Your task to perform on an android device: Go to battery settings Image 0: 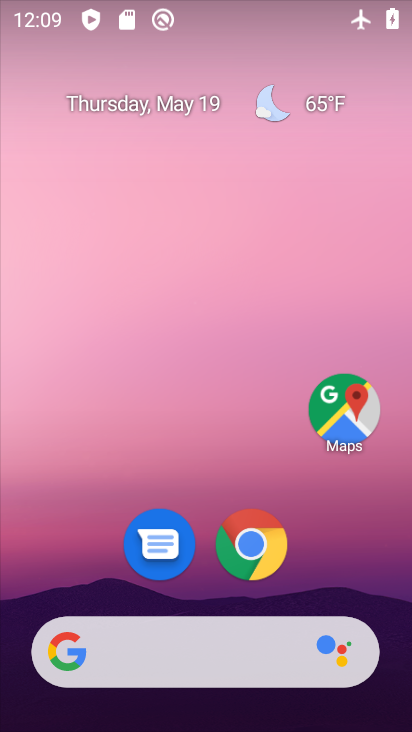
Step 0: drag from (365, 555) to (347, 156)
Your task to perform on an android device: Go to battery settings Image 1: 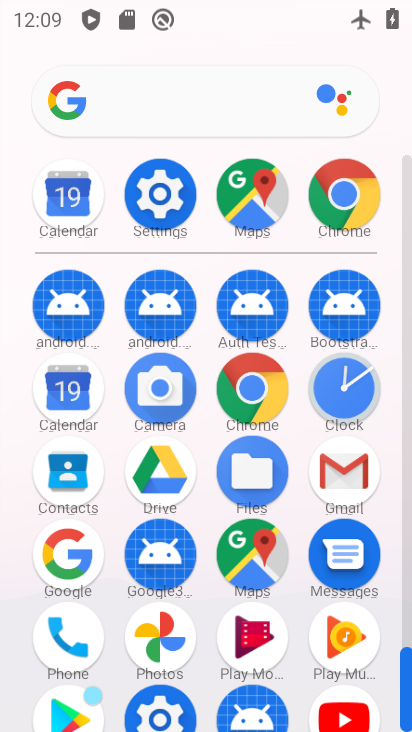
Step 1: click (141, 202)
Your task to perform on an android device: Go to battery settings Image 2: 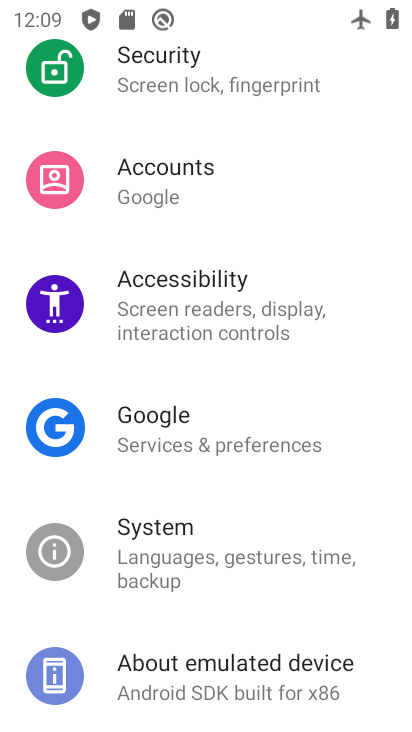
Step 2: drag from (325, 604) to (334, 366)
Your task to perform on an android device: Go to battery settings Image 3: 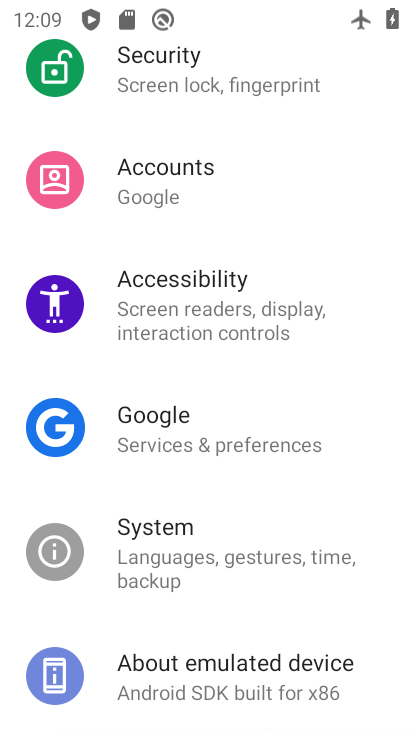
Step 3: drag from (358, 313) to (358, 449)
Your task to perform on an android device: Go to battery settings Image 4: 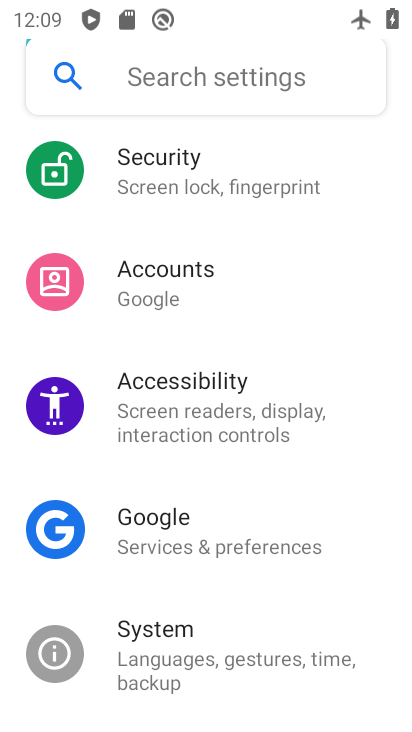
Step 4: drag from (367, 321) to (351, 436)
Your task to perform on an android device: Go to battery settings Image 5: 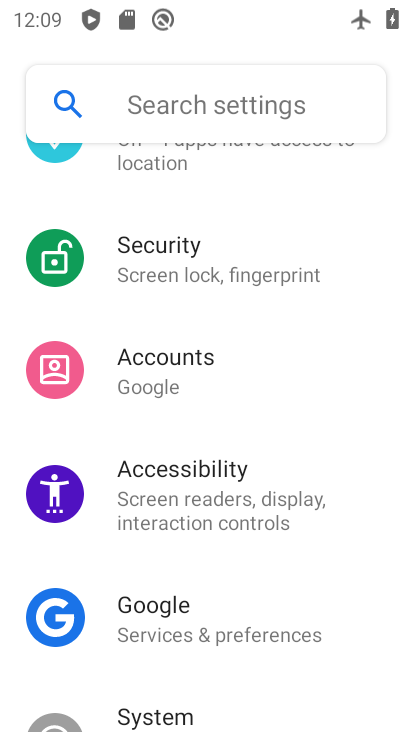
Step 5: drag from (362, 299) to (351, 410)
Your task to perform on an android device: Go to battery settings Image 6: 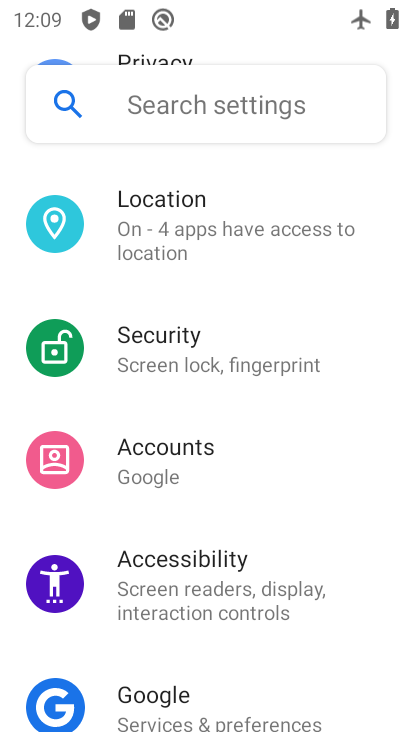
Step 6: drag from (344, 269) to (350, 387)
Your task to perform on an android device: Go to battery settings Image 7: 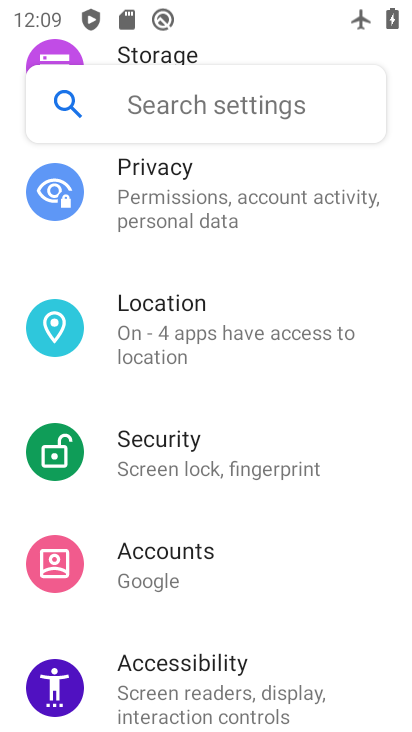
Step 7: drag from (357, 250) to (343, 356)
Your task to perform on an android device: Go to battery settings Image 8: 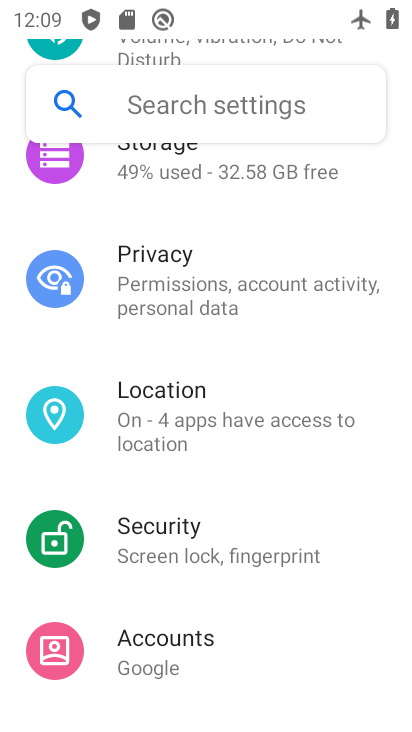
Step 8: drag from (345, 235) to (335, 342)
Your task to perform on an android device: Go to battery settings Image 9: 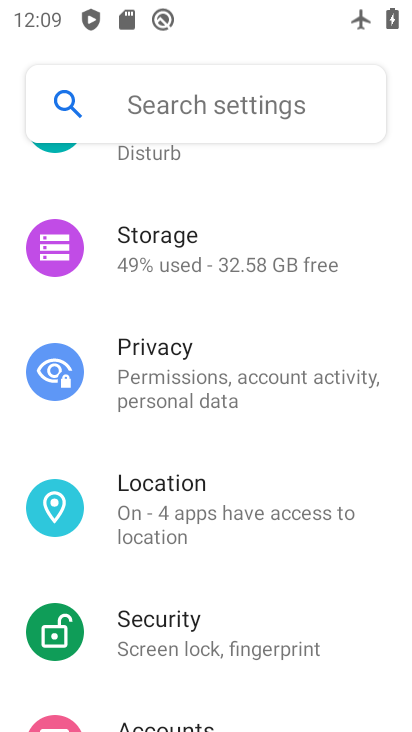
Step 9: drag from (351, 229) to (345, 332)
Your task to perform on an android device: Go to battery settings Image 10: 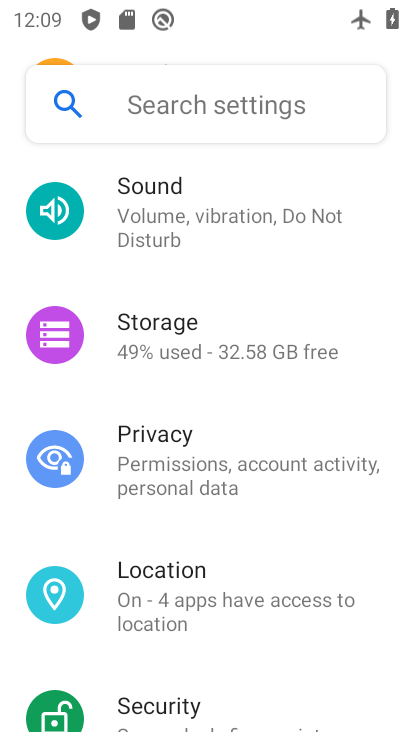
Step 10: drag from (360, 206) to (369, 326)
Your task to perform on an android device: Go to battery settings Image 11: 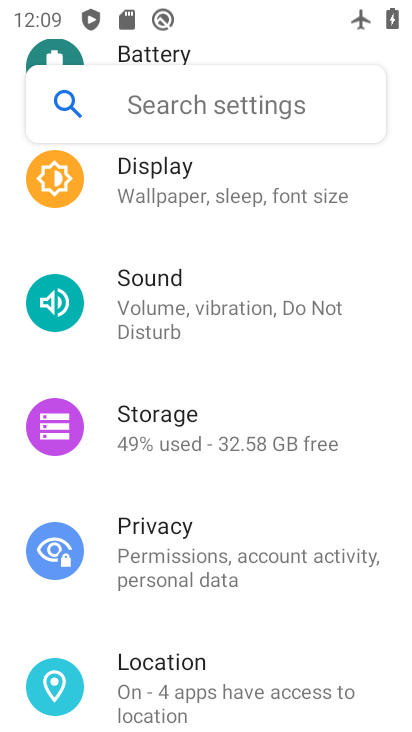
Step 11: drag from (375, 208) to (354, 311)
Your task to perform on an android device: Go to battery settings Image 12: 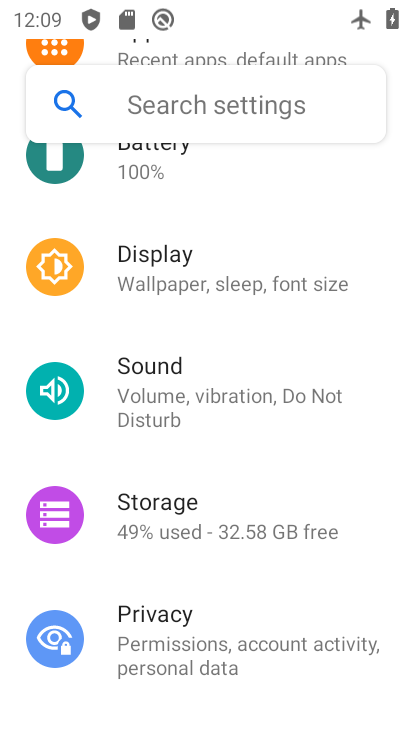
Step 12: drag from (368, 223) to (365, 305)
Your task to perform on an android device: Go to battery settings Image 13: 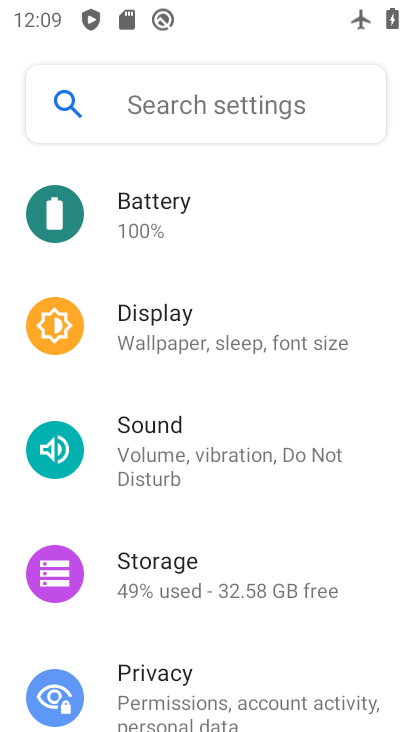
Step 13: drag from (364, 226) to (350, 319)
Your task to perform on an android device: Go to battery settings Image 14: 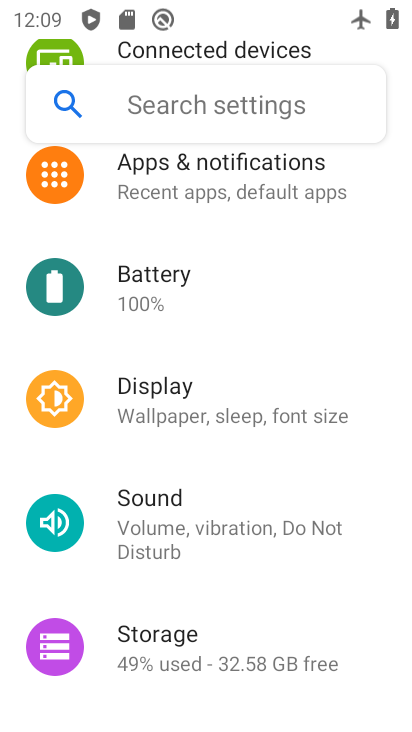
Step 14: drag from (354, 200) to (345, 308)
Your task to perform on an android device: Go to battery settings Image 15: 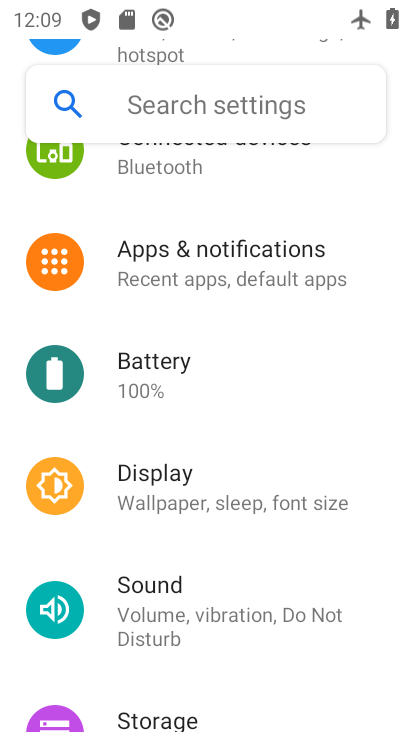
Step 15: drag from (355, 214) to (349, 310)
Your task to perform on an android device: Go to battery settings Image 16: 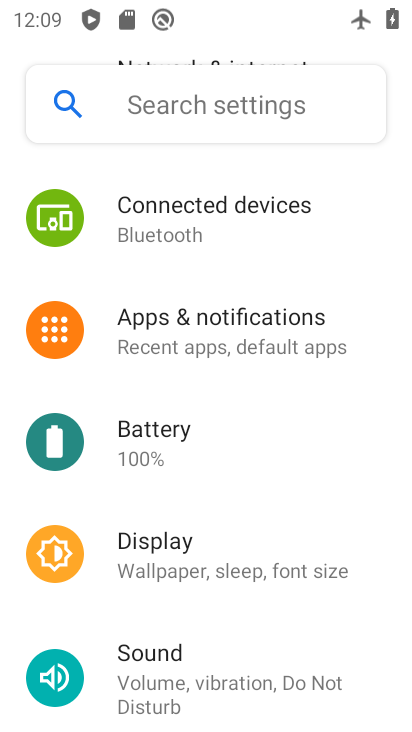
Step 16: drag from (357, 231) to (359, 368)
Your task to perform on an android device: Go to battery settings Image 17: 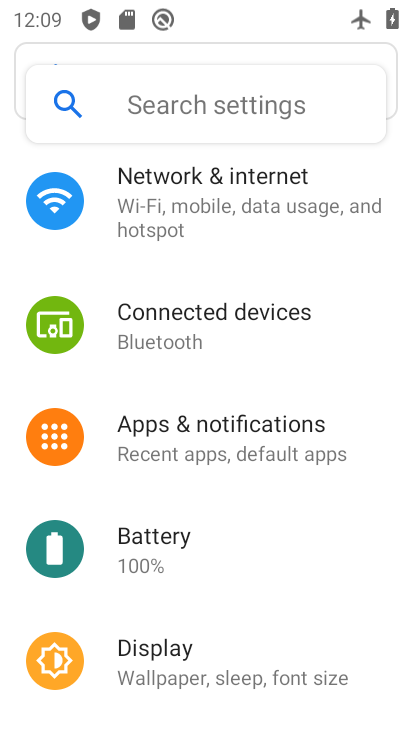
Step 17: click (243, 558)
Your task to perform on an android device: Go to battery settings Image 18: 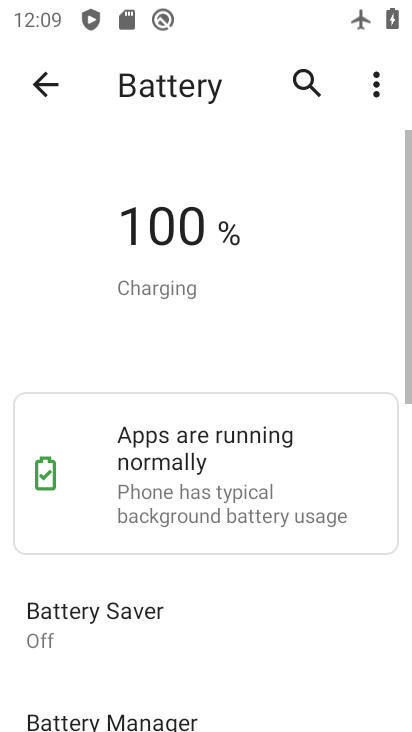
Step 18: task complete